Your task to perform on an android device: check battery use Image 0: 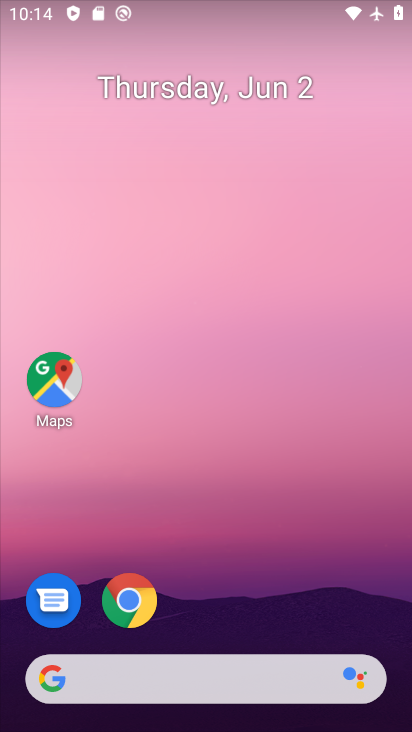
Step 0: press home button
Your task to perform on an android device: check battery use Image 1: 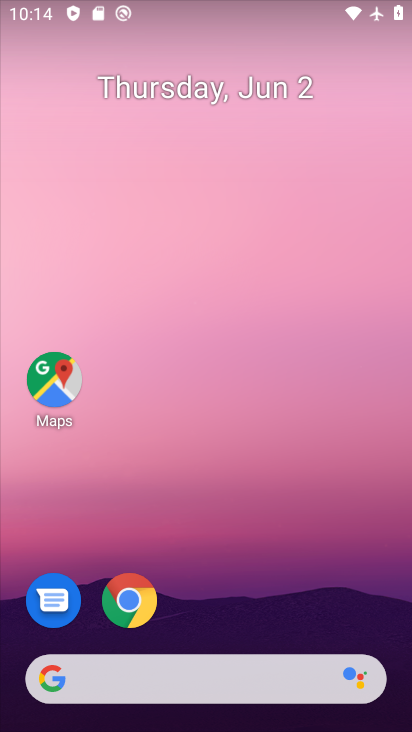
Step 1: drag from (196, 675) to (256, 56)
Your task to perform on an android device: check battery use Image 2: 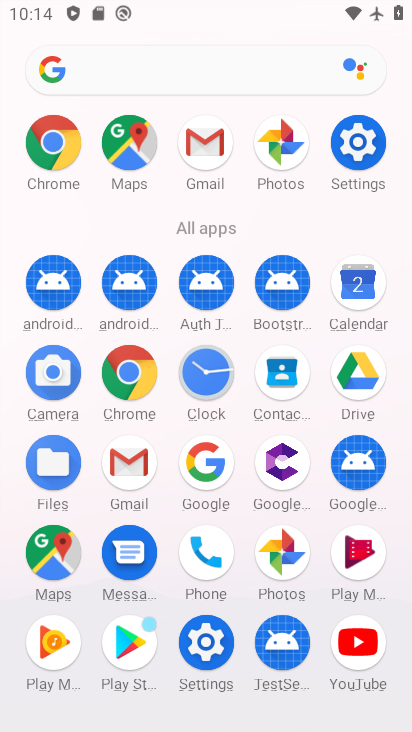
Step 2: click (363, 144)
Your task to perform on an android device: check battery use Image 3: 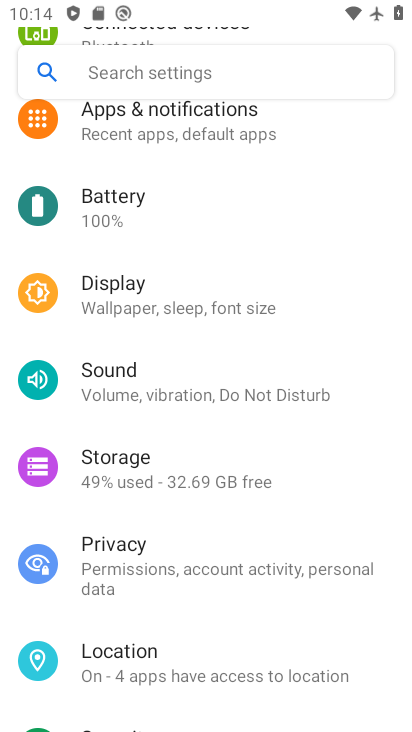
Step 3: click (122, 205)
Your task to perform on an android device: check battery use Image 4: 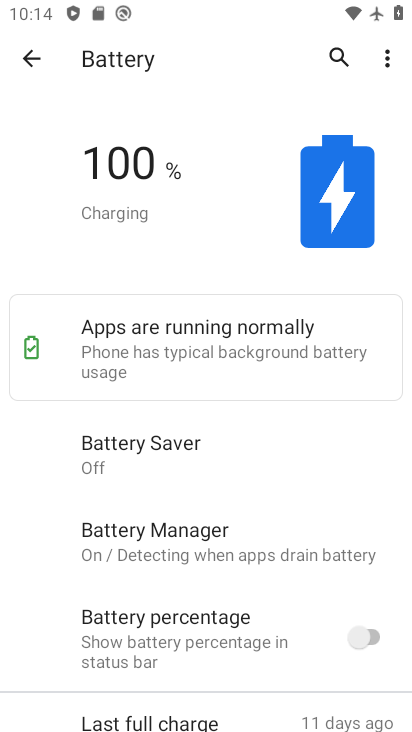
Step 4: click (385, 64)
Your task to perform on an android device: check battery use Image 5: 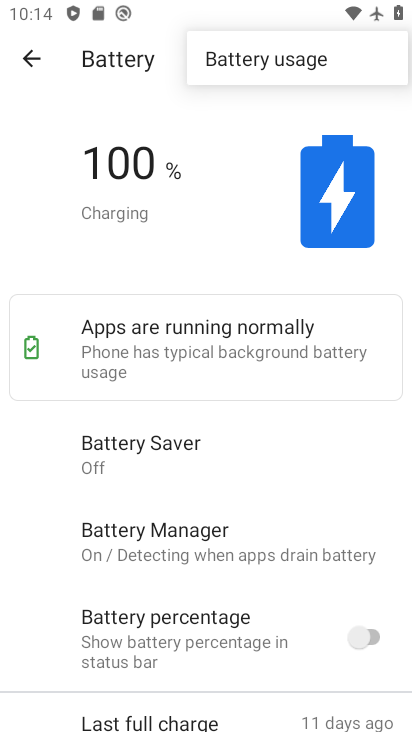
Step 5: click (265, 73)
Your task to perform on an android device: check battery use Image 6: 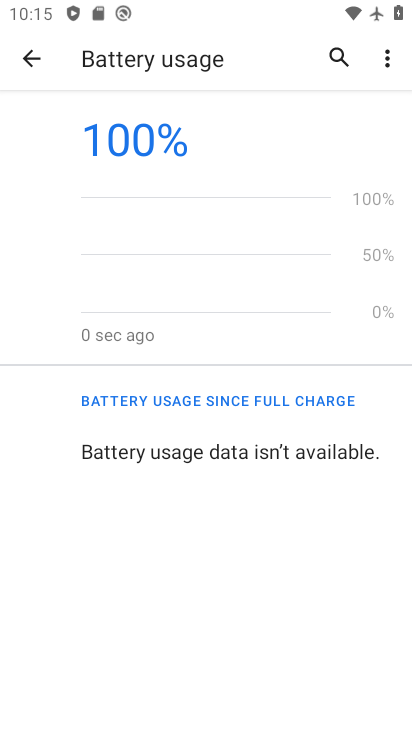
Step 6: task complete